Your task to perform on an android device: turn on translation in the chrome app Image 0: 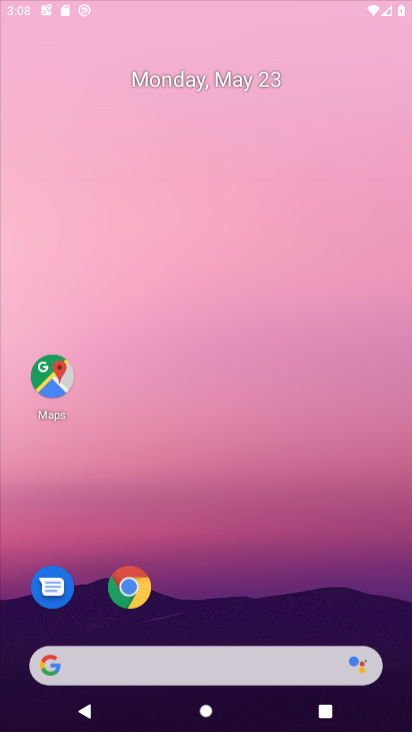
Step 0: click (245, 152)
Your task to perform on an android device: turn on translation in the chrome app Image 1: 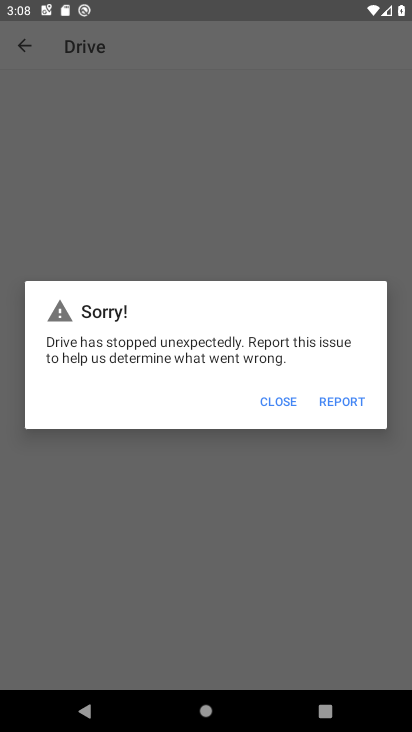
Step 1: click (262, 343)
Your task to perform on an android device: turn on translation in the chrome app Image 2: 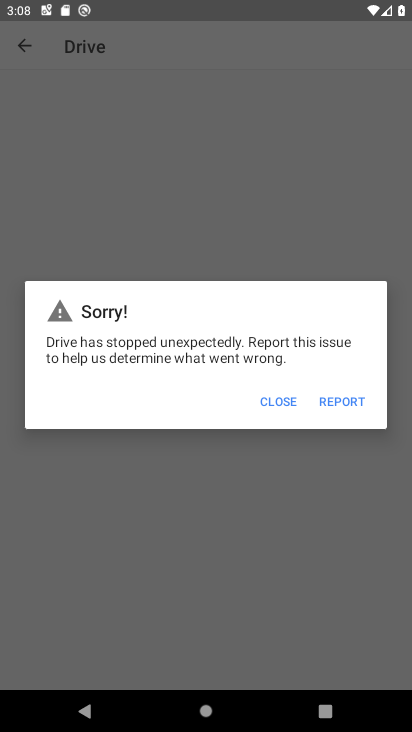
Step 2: press home button
Your task to perform on an android device: turn on translation in the chrome app Image 3: 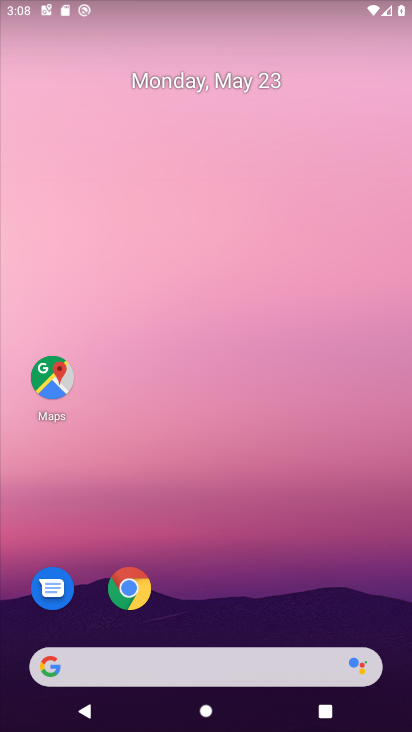
Step 3: drag from (207, 625) to (241, 18)
Your task to perform on an android device: turn on translation in the chrome app Image 4: 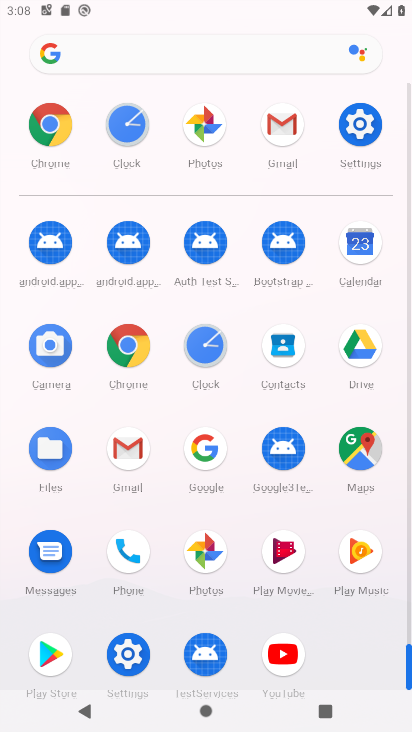
Step 4: click (123, 345)
Your task to perform on an android device: turn on translation in the chrome app Image 5: 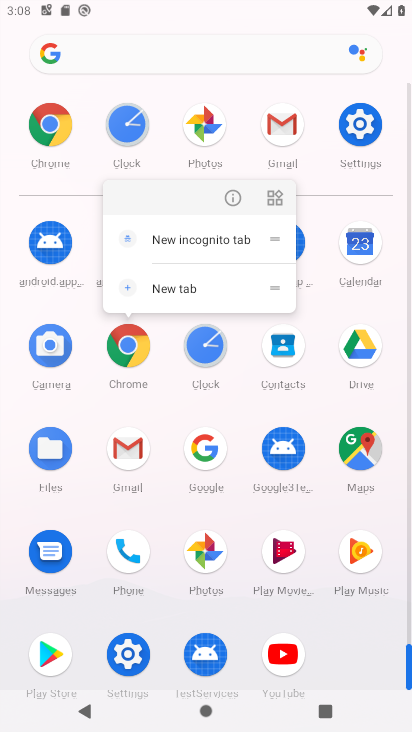
Step 5: click (239, 203)
Your task to perform on an android device: turn on translation in the chrome app Image 6: 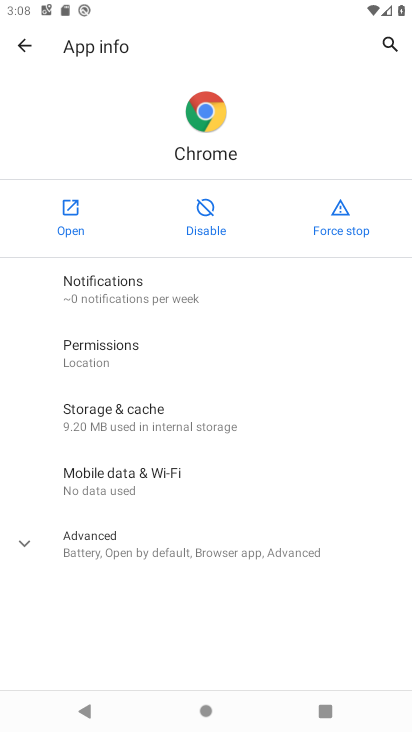
Step 6: click (85, 206)
Your task to perform on an android device: turn on translation in the chrome app Image 7: 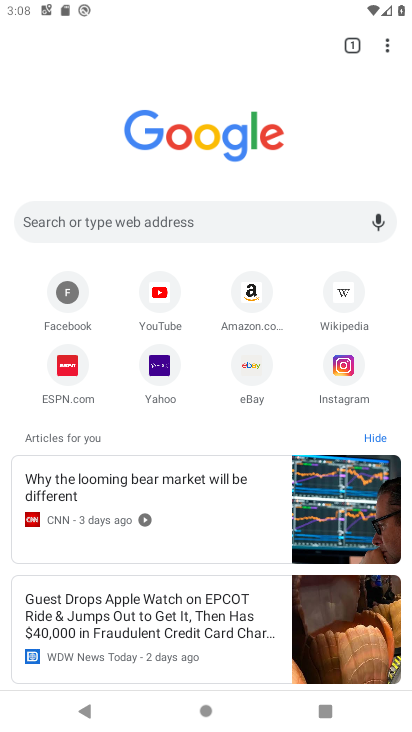
Step 7: click (391, 42)
Your task to perform on an android device: turn on translation in the chrome app Image 8: 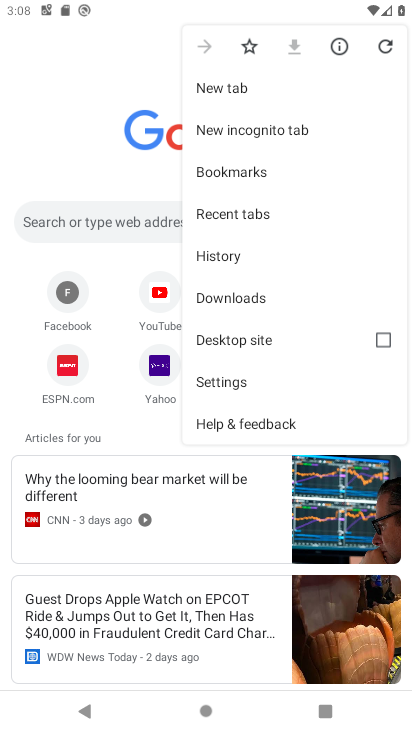
Step 8: drag from (260, 371) to (322, 10)
Your task to perform on an android device: turn on translation in the chrome app Image 9: 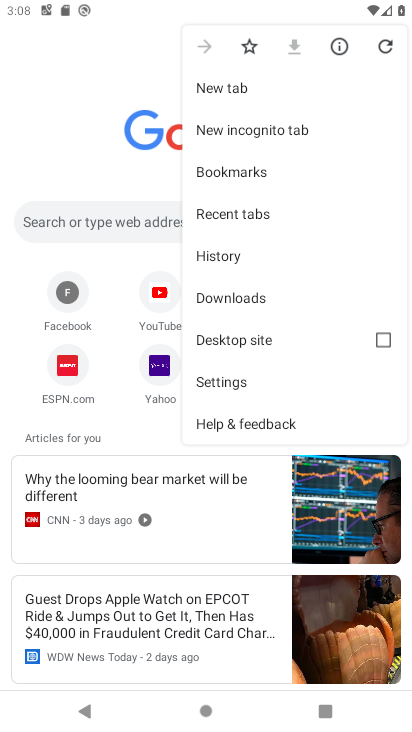
Step 9: click (243, 394)
Your task to perform on an android device: turn on translation in the chrome app Image 10: 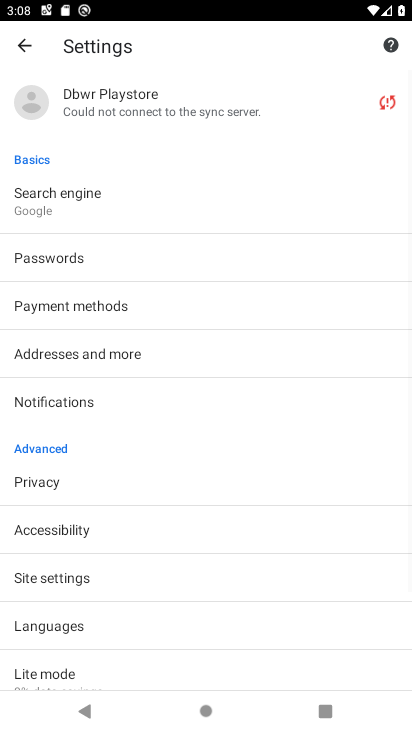
Step 10: drag from (99, 608) to (201, 207)
Your task to perform on an android device: turn on translation in the chrome app Image 11: 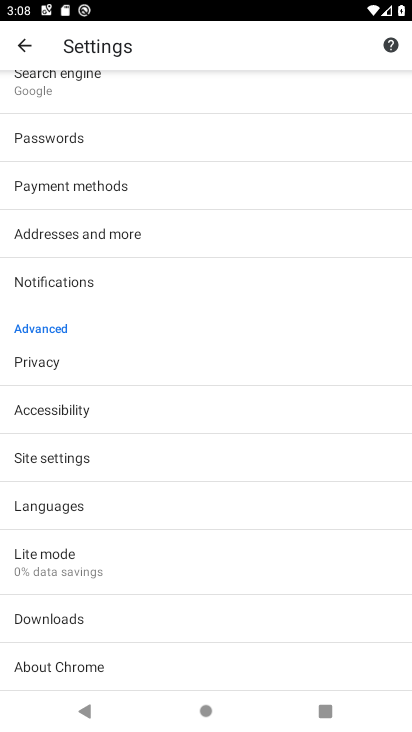
Step 11: click (58, 500)
Your task to perform on an android device: turn on translation in the chrome app Image 12: 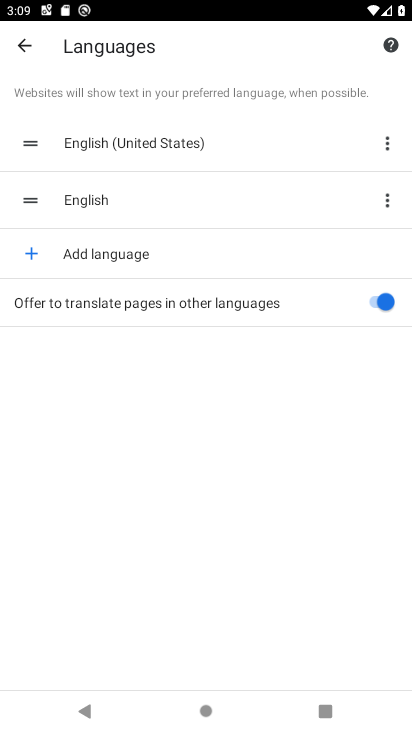
Step 12: task complete